Your task to perform on an android device: turn off picture-in-picture Image 0: 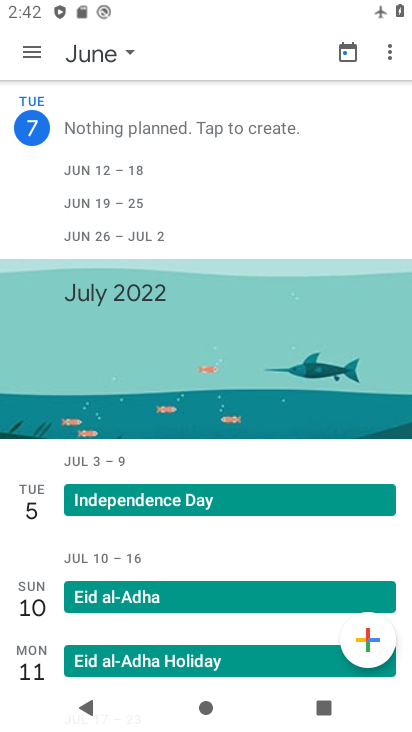
Step 0: press home button
Your task to perform on an android device: turn off picture-in-picture Image 1: 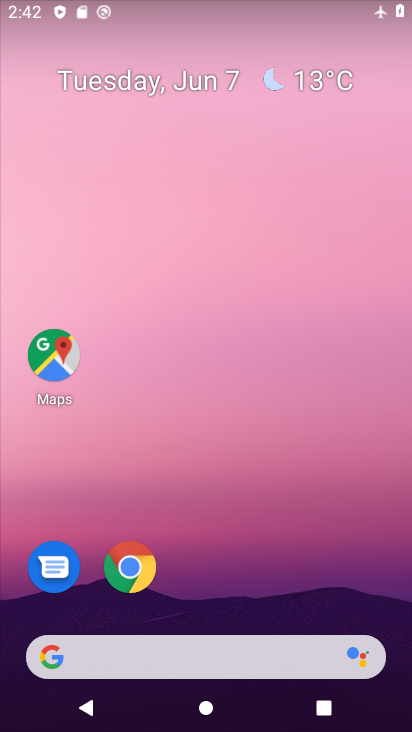
Step 1: click (106, 567)
Your task to perform on an android device: turn off picture-in-picture Image 2: 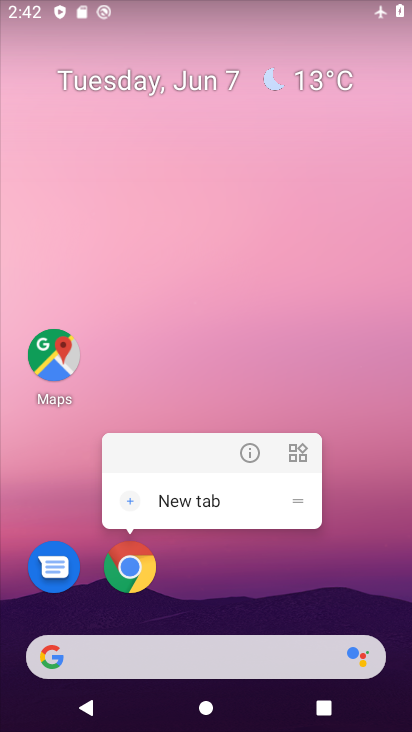
Step 2: click (250, 443)
Your task to perform on an android device: turn off picture-in-picture Image 3: 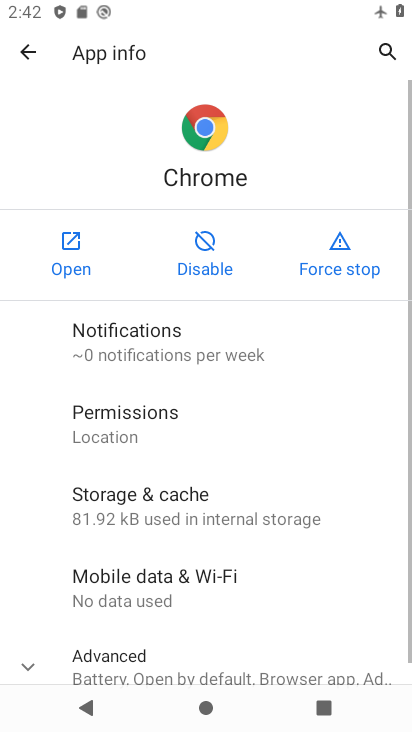
Step 3: drag from (229, 559) to (239, 256)
Your task to perform on an android device: turn off picture-in-picture Image 4: 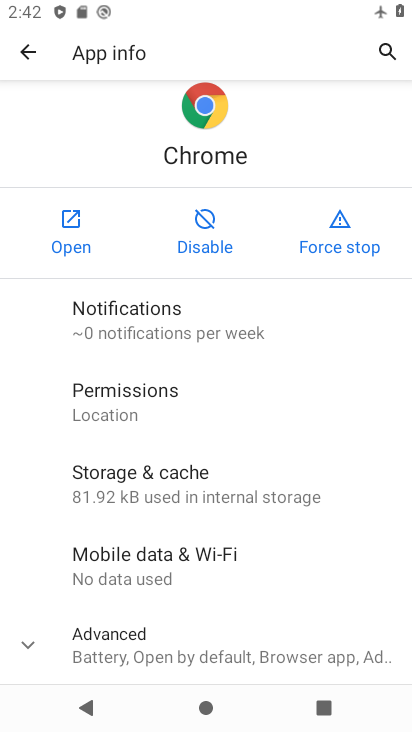
Step 4: click (170, 660)
Your task to perform on an android device: turn off picture-in-picture Image 5: 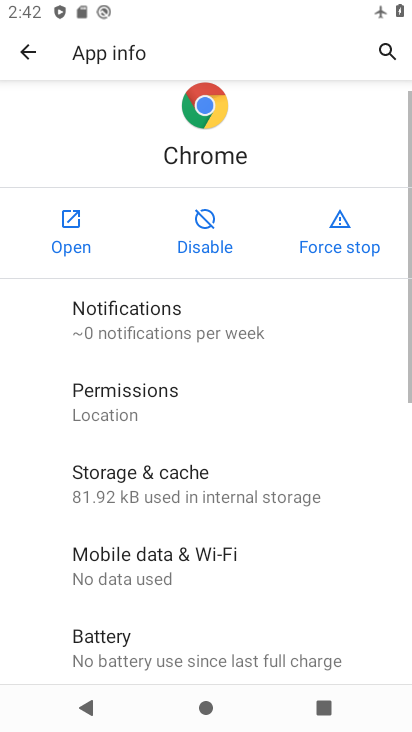
Step 5: drag from (170, 660) to (391, 44)
Your task to perform on an android device: turn off picture-in-picture Image 6: 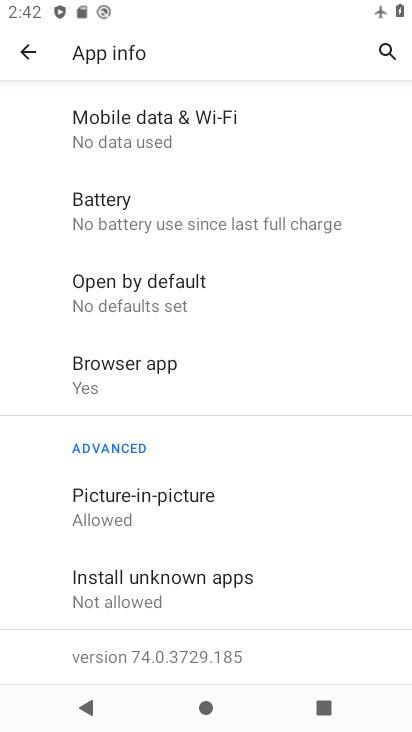
Step 6: click (178, 488)
Your task to perform on an android device: turn off picture-in-picture Image 7: 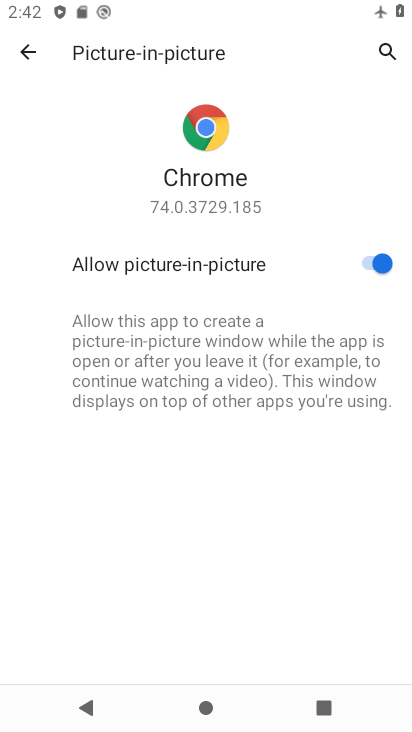
Step 7: click (261, 259)
Your task to perform on an android device: turn off picture-in-picture Image 8: 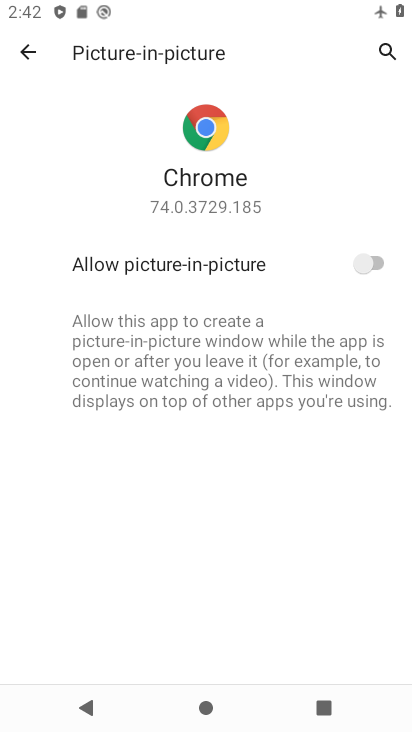
Step 8: task complete